Your task to perform on an android device: Do I have any events tomorrow? Image 0: 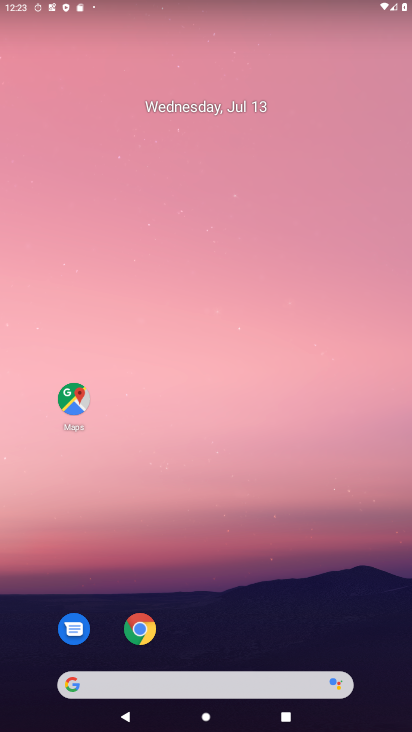
Step 0: drag from (203, 640) to (152, 241)
Your task to perform on an android device: Do I have any events tomorrow? Image 1: 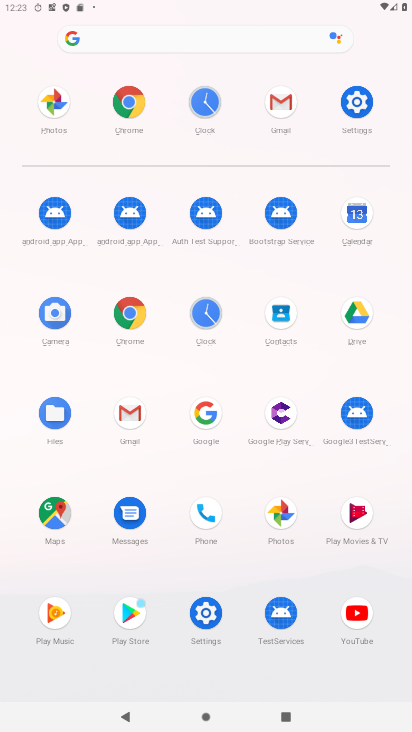
Step 1: click (347, 227)
Your task to perform on an android device: Do I have any events tomorrow? Image 2: 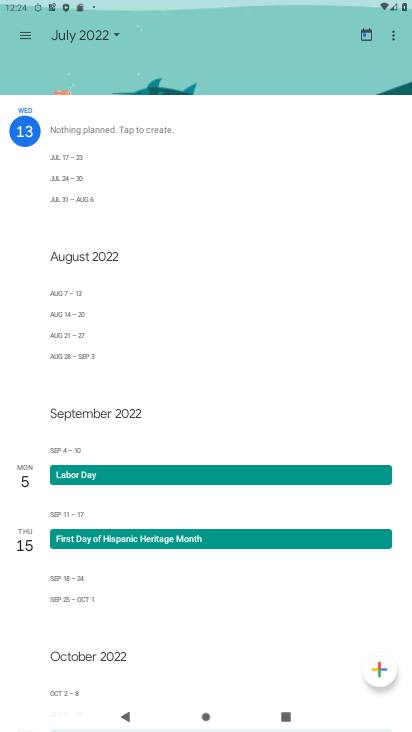
Step 2: click (100, 27)
Your task to perform on an android device: Do I have any events tomorrow? Image 3: 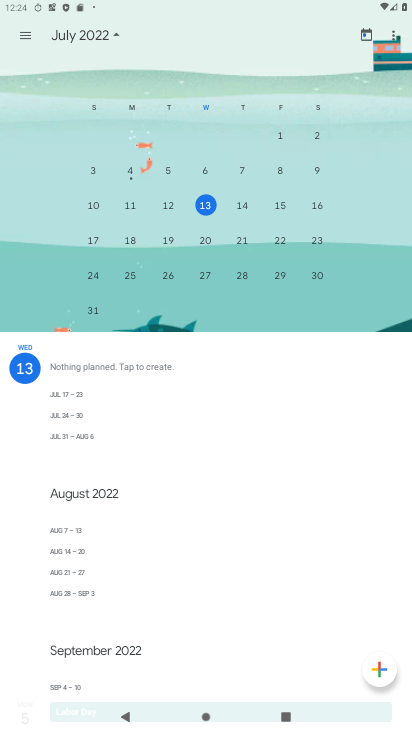
Step 3: click (222, 206)
Your task to perform on an android device: Do I have any events tomorrow? Image 4: 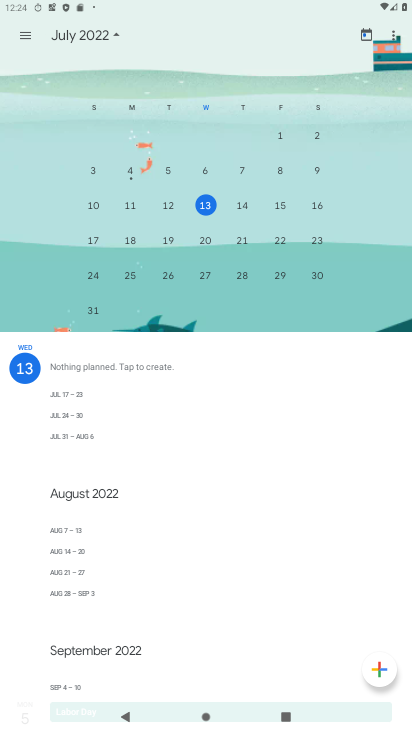
Step 4: click (244, 206)
Your task to perform on an android device: Do I have any events tomorrow? Image 5: 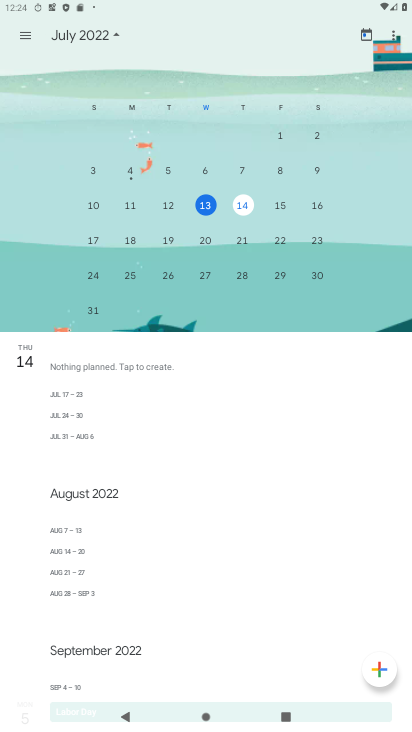
Step 5: task complete